Your task to perform on an android device: Open Reddit.com Image 0: 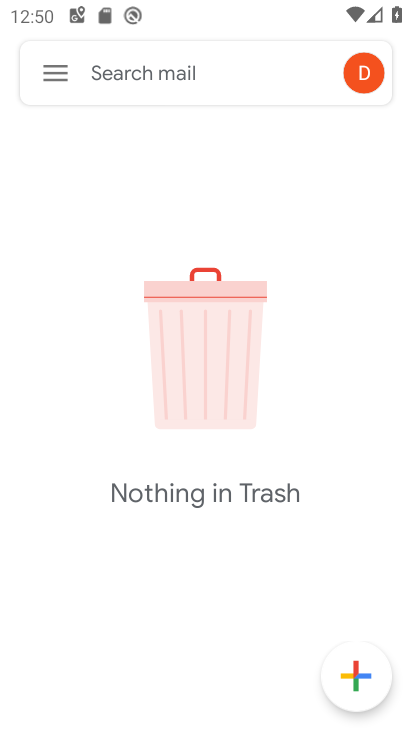
Step 0: press home button
Your task to perform on an android device: Open Reddit.com Image 1: 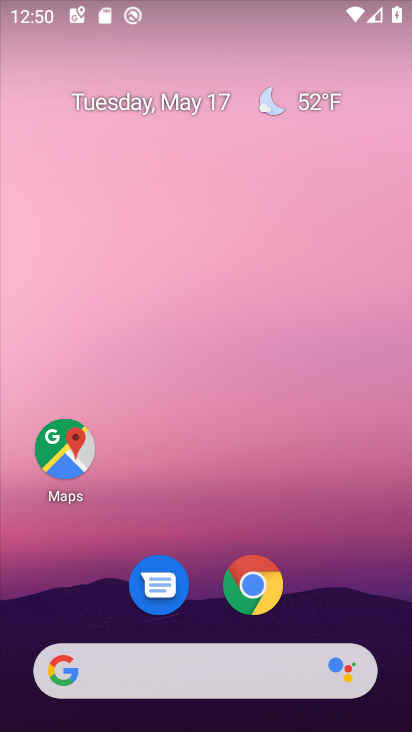
Step 1: click (267, 681)
Your task to perform on an android device: Open Reddit.com Image 2: 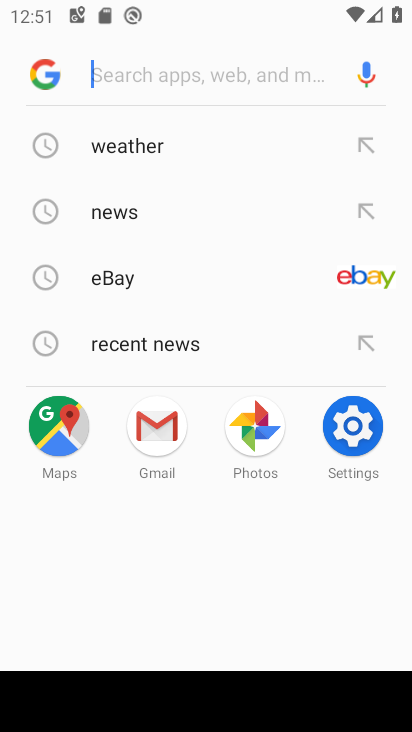
Step 2: type "reddit.com"
Your task to perform on an android device: Open Reddit.com Image 3: 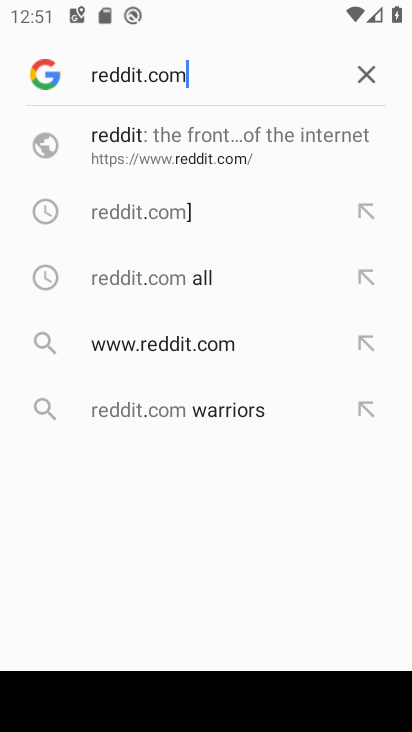
Step 3: click (156, 149)
Your task to perform on an android device: Open Reddit.com Image 4: 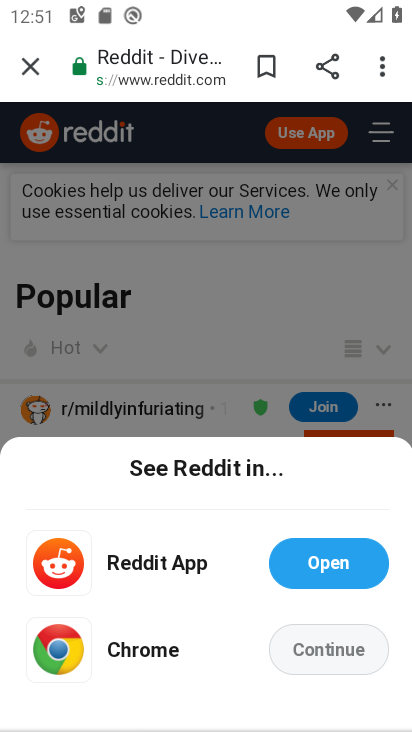
Step 4: task complete